Your task to perform on an android device: empty trash in the gmail app Image 0: 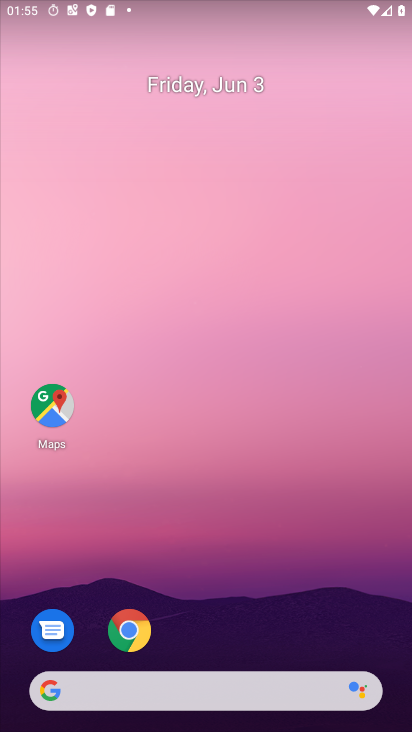
Step 0: drag from (237, 652) to (187, 335)
Your task to perform on an android device: empty trash in the gmail app Image 1: 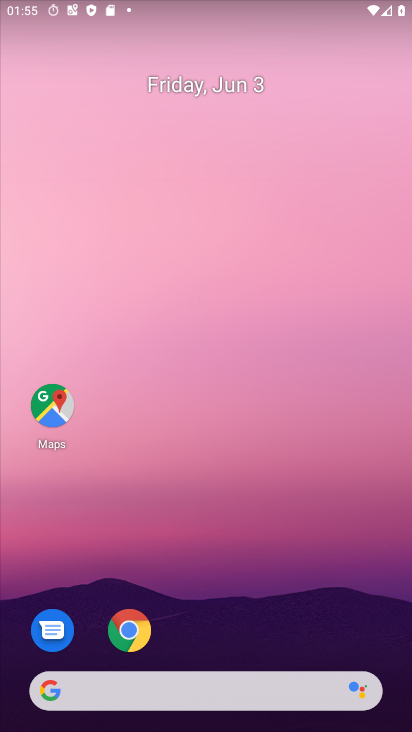
Step 1: drag from (223, 645) to (161, 340)
Your task to perform on an android device: empty trash in the gmail app Image 2: 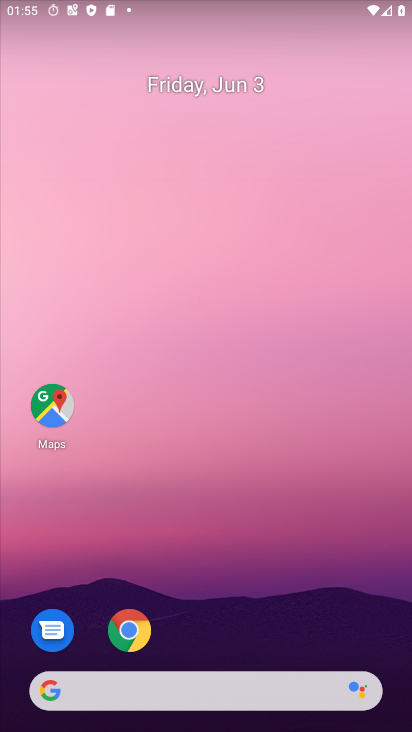
Step 2: drag from (251, 650) to (189, 274)
Your task to perform on an android device: empty trash in the gmail app Image 3: 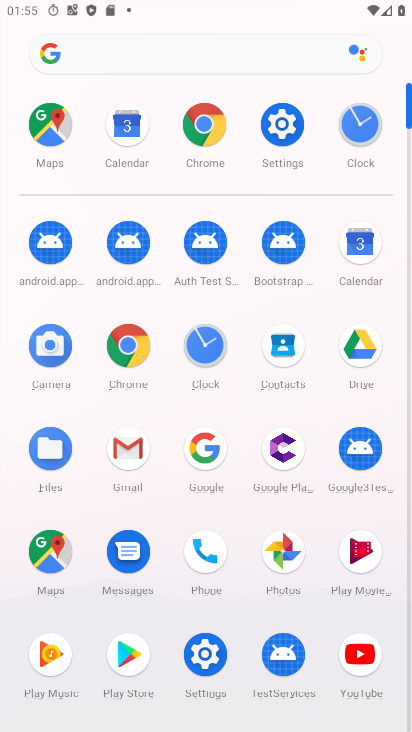
Step 3: click (137, 458)
Your task to perform on an android device: empty trash in the gmail app Image 4: 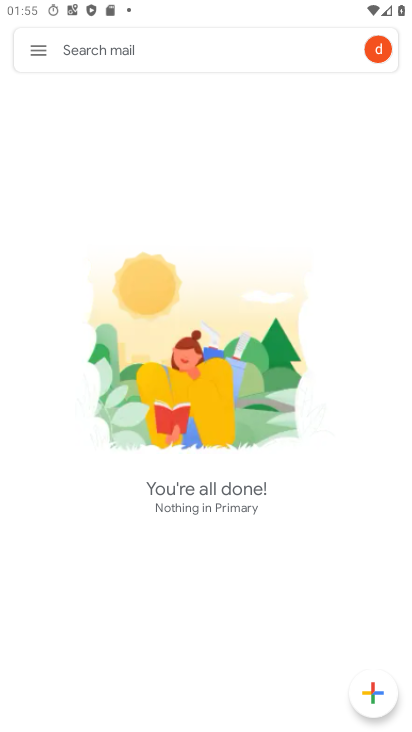
Step 4: click (33, 54)
Your task to perform on an android device: empty trash in the gmail app Image 5: 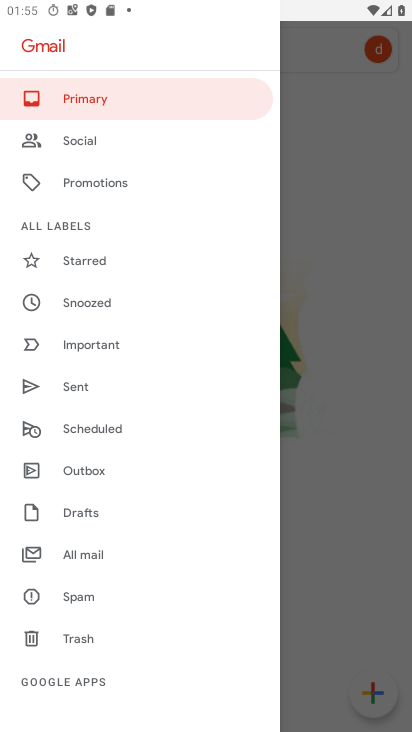
Step 5: click (87, 647)
Your task to perform on an android device: empty trash in the gmail app Image 6: 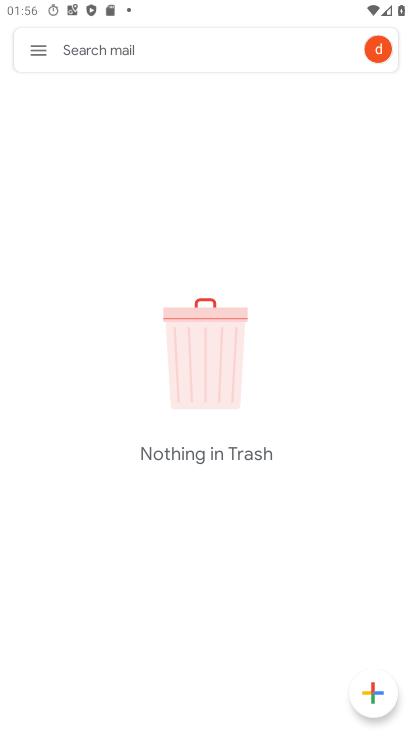
Step 6: click (34, 48)
Your task to perform on an android device: empty trash in the gmail app Image 7: 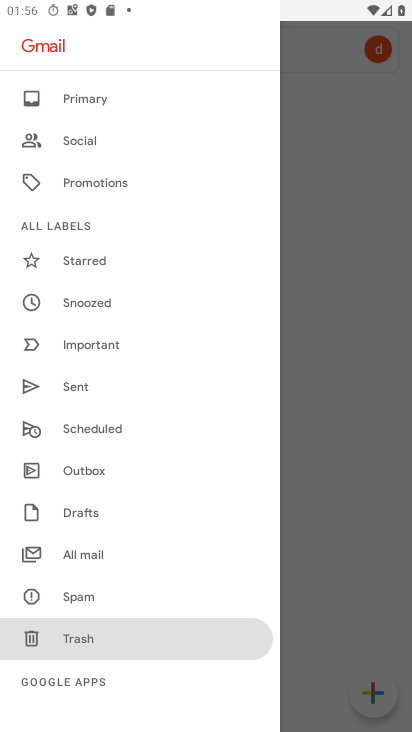
Step 7: click (189, 635)
Your task to perform on an android device: empty trash in the gmail app Image 8: 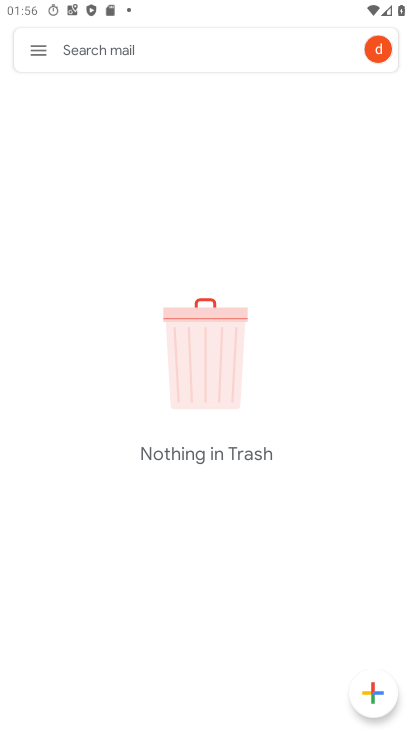
Step 8: task complete